Your task to perform on an android device: toggle airplane mode Image 0: 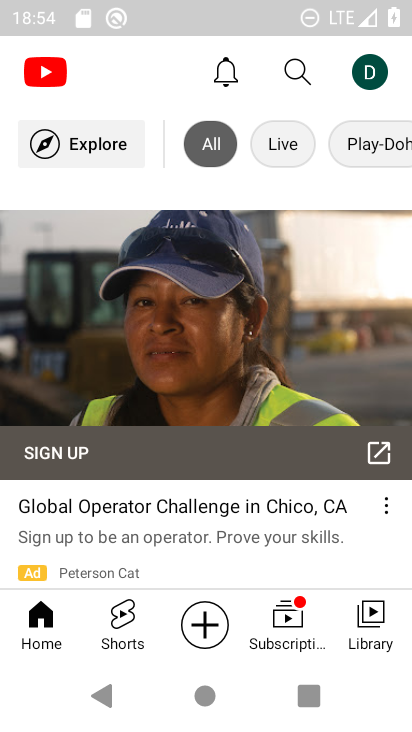
Step 0: press home button
Your task to perform on an android device: toggle airplane mode Image 1: 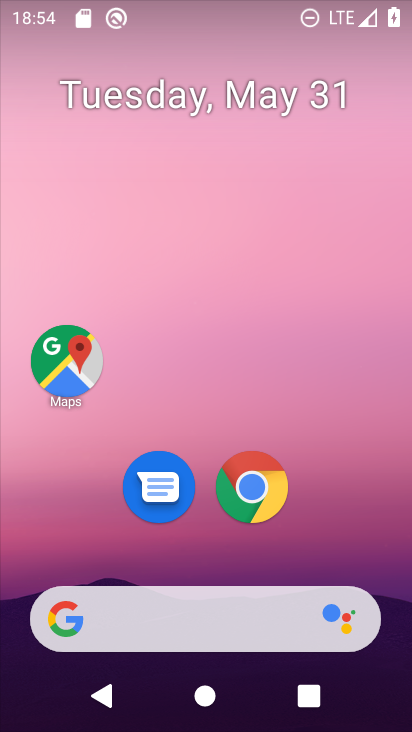
Step 1: drag from (357, 525) to (215, 78)
Your task to perform on an android device: toggle airplane mode Image 2: 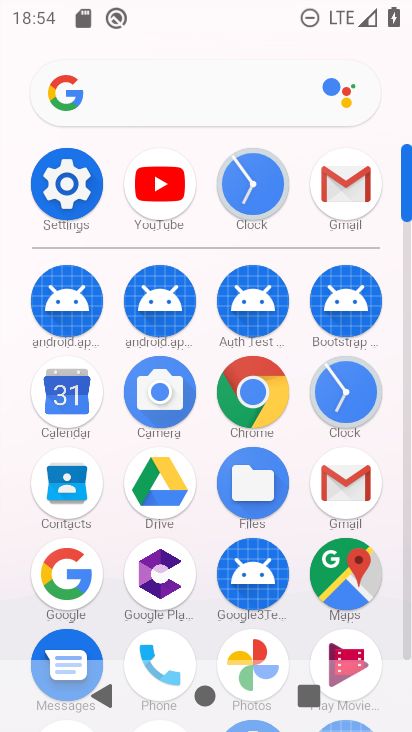
Step 2: click (62, 183)
Your task to perform on an android device: toggle airplane mode Image 3: 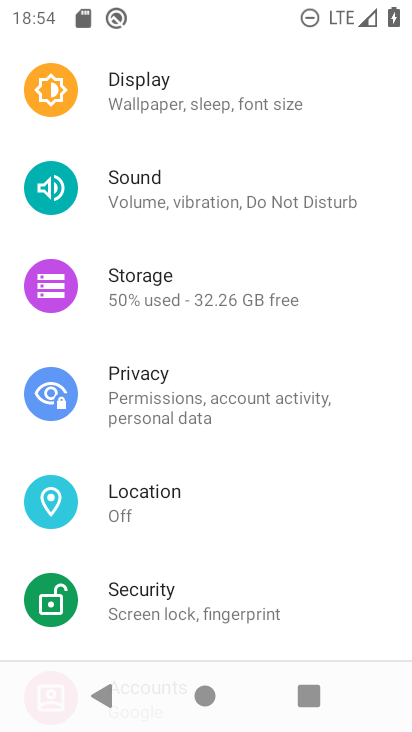
Step 3: drag from (185, 184) to (141, 730)
Your task to perform on an android device: toggle airplane mode Image 4: 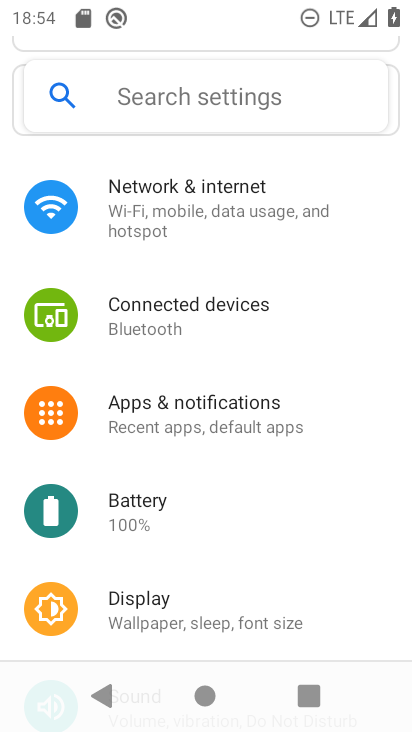
Step 4: click (166, 191)
Your task to perform on an android device: toggle airplane mode Image 5: 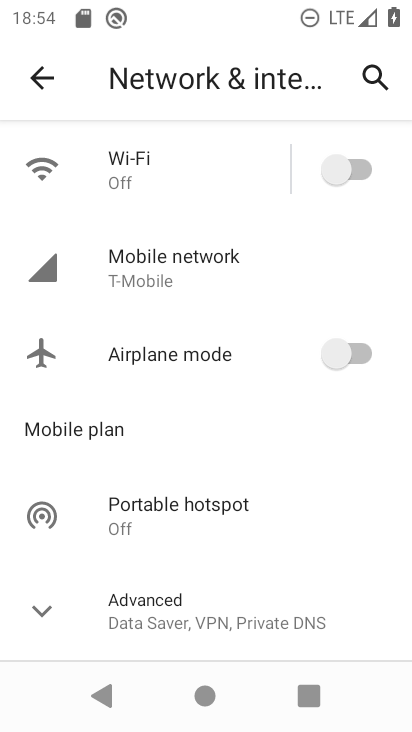
Step 5: click (340, 361)
Your task to perform on an android device: toggle airplane mode Image 6: 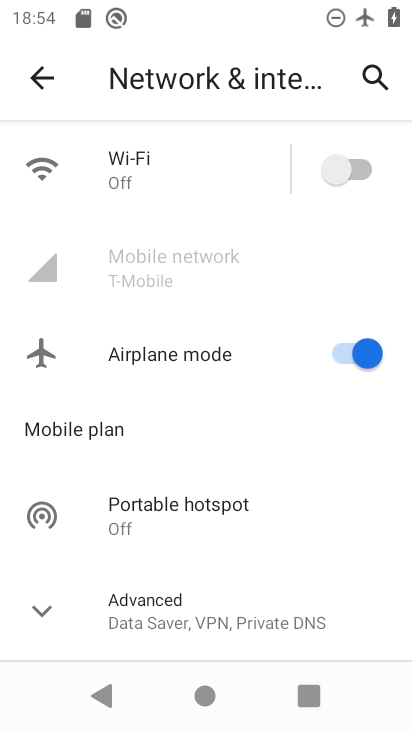
Step 6: task complete